Your task to perform on an android device: Go to location settings Image 0: 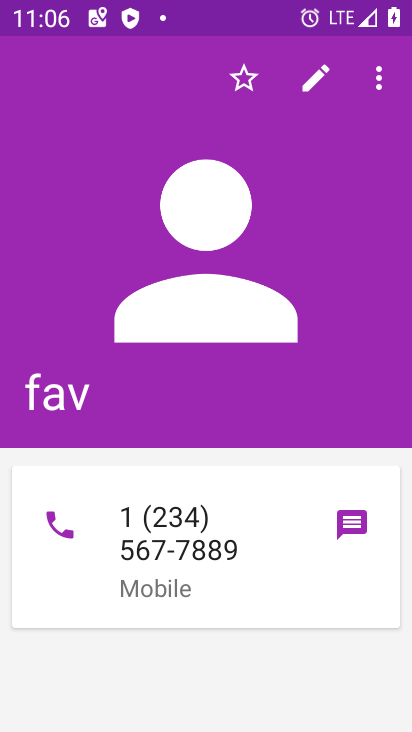
Step 0: press home button
Your task to perform on an android device: Go to location settings Image 1: 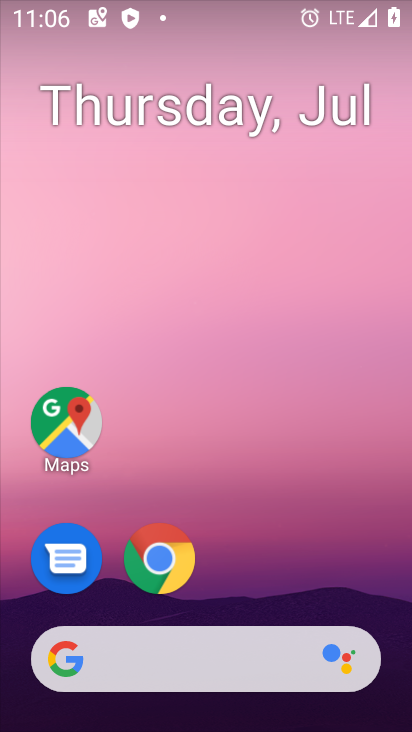
Step 1: drag from (340, 563) to (360, 97)
Your task to perform on an android device: Go to location settings Image 2: 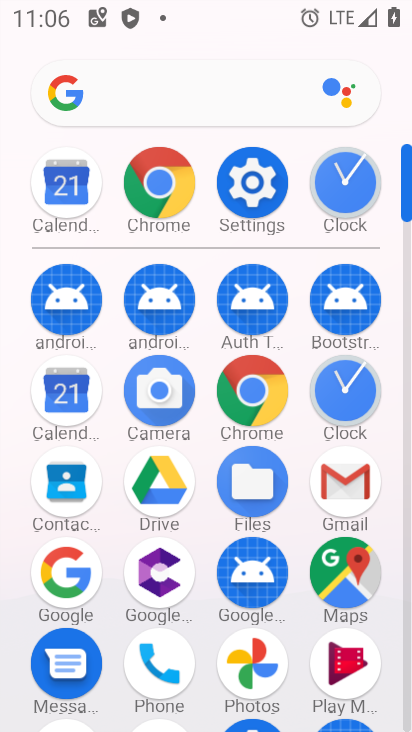
Step 2: click (255, 195)
Your task to perform on an android device: Go to location settings Image 3: 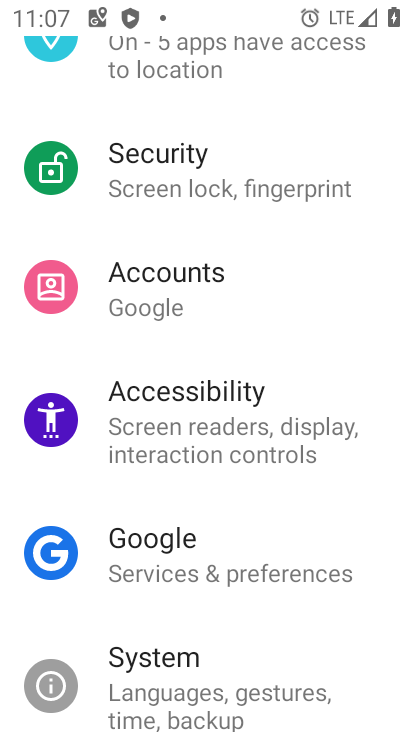
Step 3: drag from (319, 248) to (351, 384)
Your task to perform on an android device: Go to location settings Image 4: 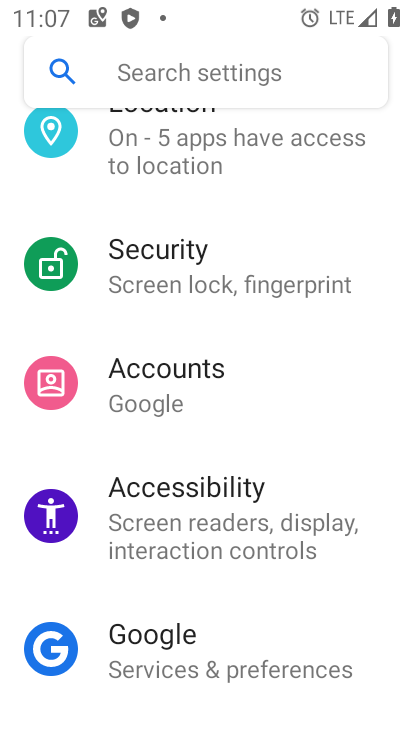
Step 4: drag from (368, 217) to (374, 337)
Your task to perform on an android device: Go to location settings Image 5: 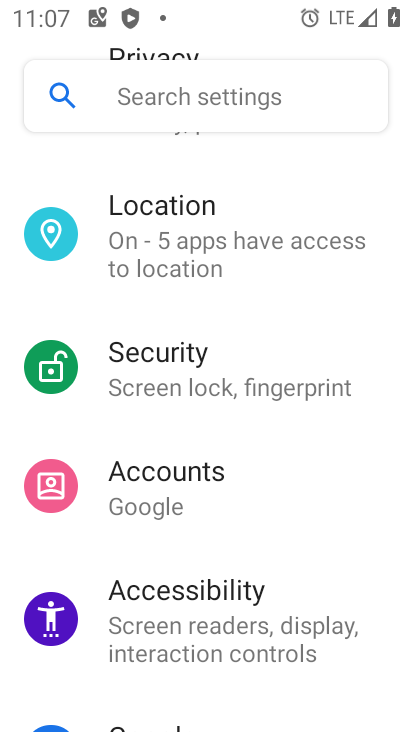
Step 5: drag from (373, 194) to (373, 335)
Your task to perform on an android device: Go to location settings Image 6: 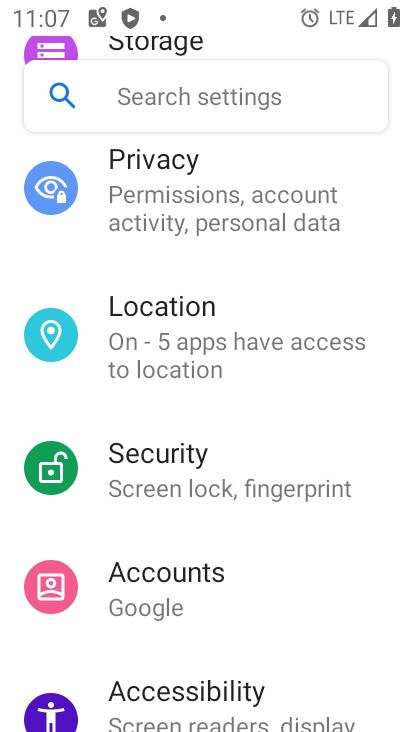
Step 6: drag from (366, 182) to (370, 307)
Your task to perform on an android device: Go to location settings Image 7: 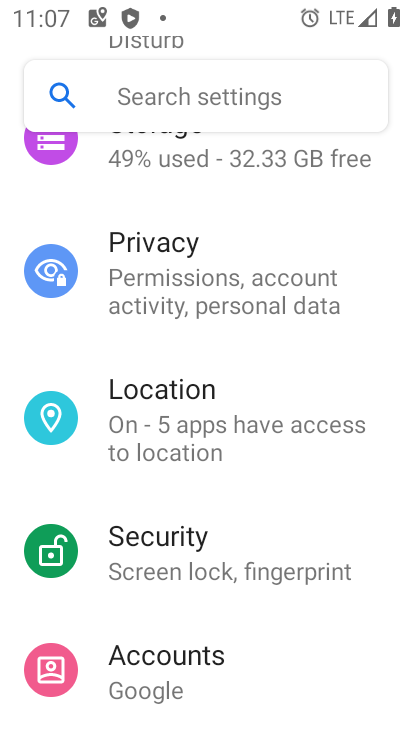
Step 7: drag from (371, 199) to (371, 315)
Your task to perform on an android device: Go to location settings Image 8: 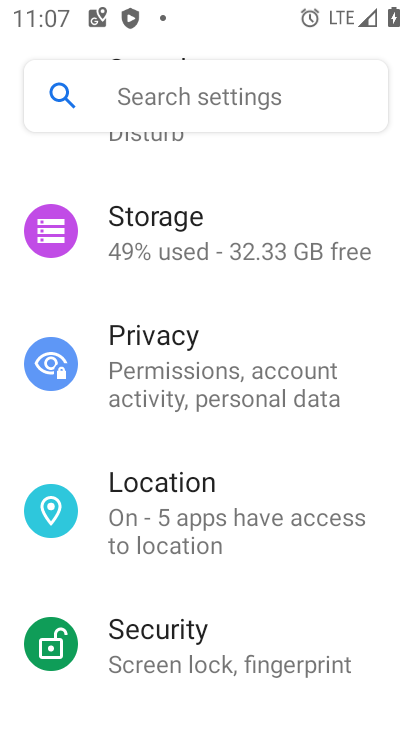
Step 8: click (311, 529)
Your task to perform on an android device: Go to location settings Image 9: 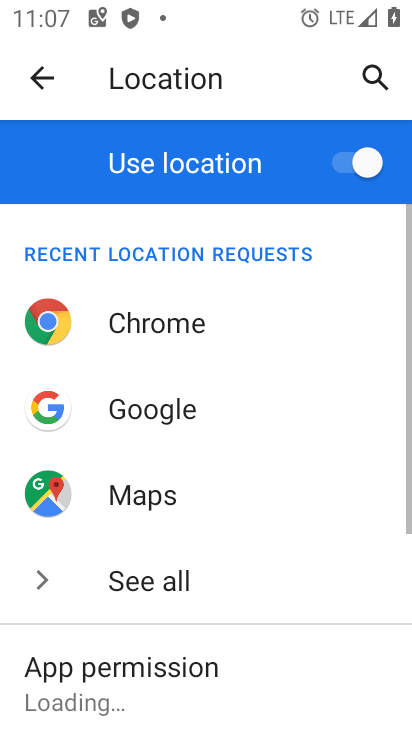
Step 9: drag from (310, 556) to (314, 367)
Your task to perform on an android device: Go to location settings Image 10: 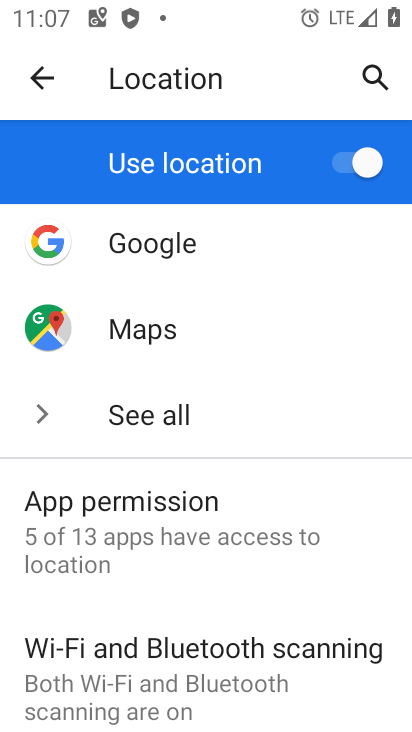
Step 10: drag from (311, 572) to (316, 398)
Your task to perform on an android device: Go to location settings Image 11: 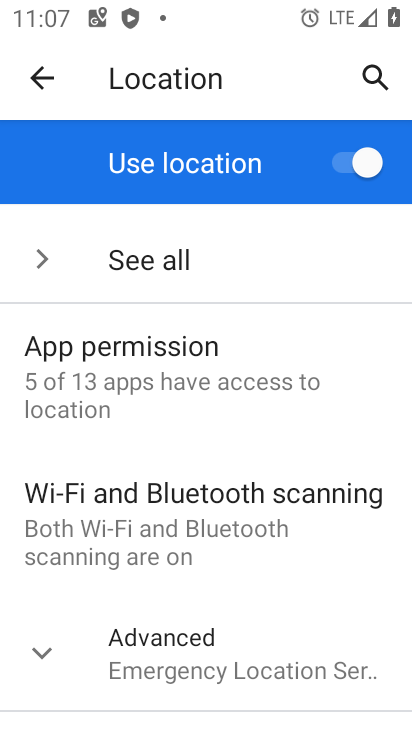
Step 11: click (238, 408)
Your task to perform on an android device: Go to location settings Image 12: 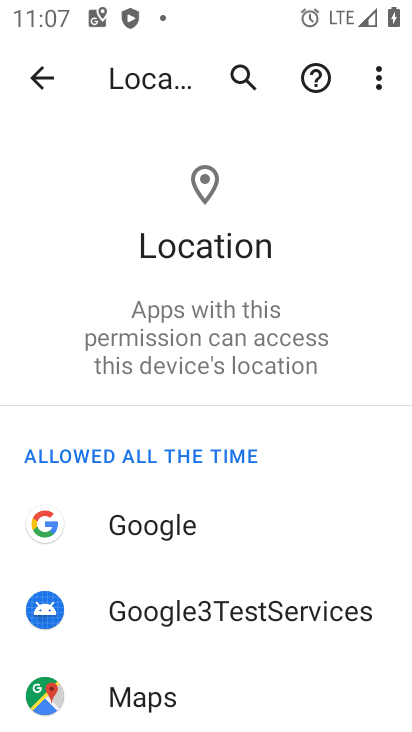
Step 12: task complete